Your task to perform on an android device: turn off smart reply in the gmail app Image 0: 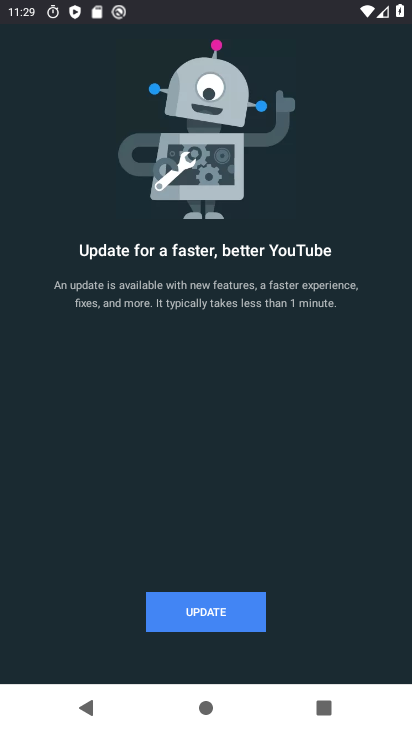
Step 0: press home button
Your task to perform on an android device: turn off smart reply in the gmail app Image 1: 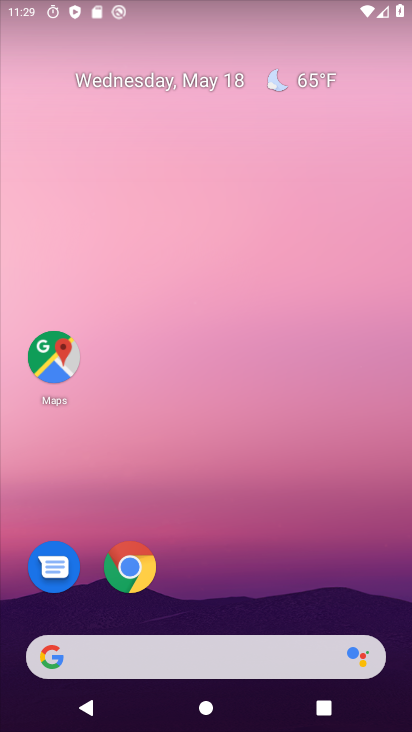
Step 1: drag from (324, 579) to (321, 109)
Your task to perform on an android device: turn off smart reply in the gmail app Image 2: 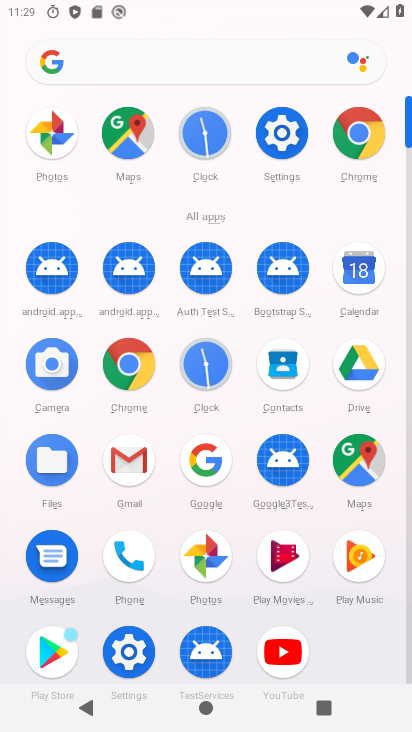
Step 2: click (138, 445)
Your task to perform on an android device: turn off smart reply in the gmail app Image 3: 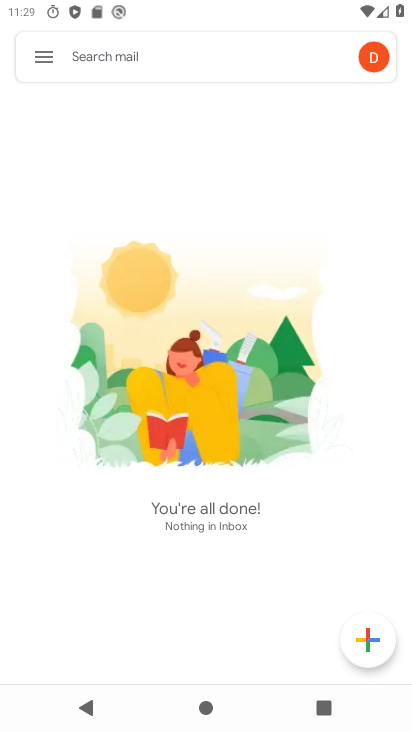
Step 3: click (47, 53)
Your task to perform on an android device: turn off smart reply in the gmail app Image 4: 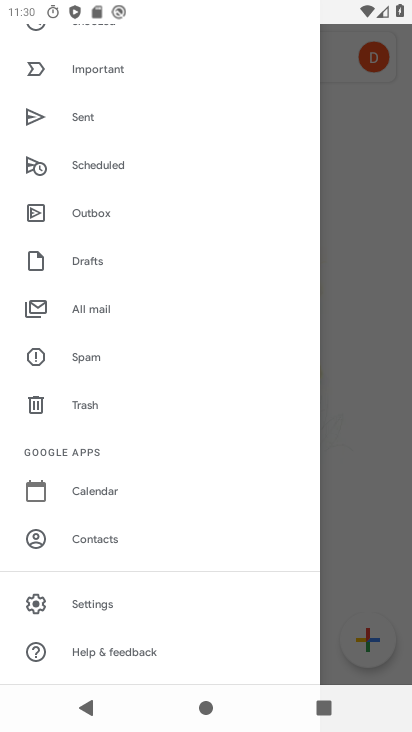
Step 4: click (88, 599)
Your task to perform on an android device: turn off smart reply in the gmail app Image 5: 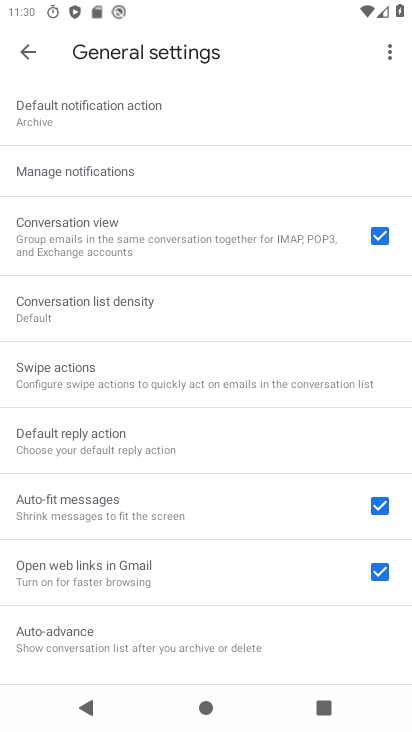
Step 5: click (27, 50)
Your task to perform on an android device: turn off smart reply in the gmail app Image 6: 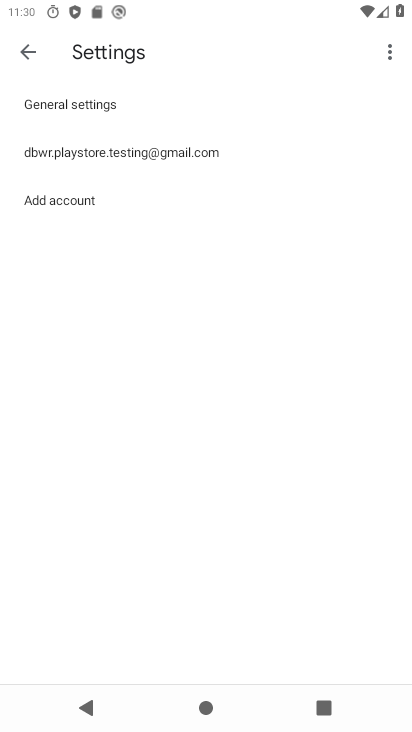
Step 6: click (87, 153)
Your task to perform on an android device: turn off smart reply in the gmail app Image 7: 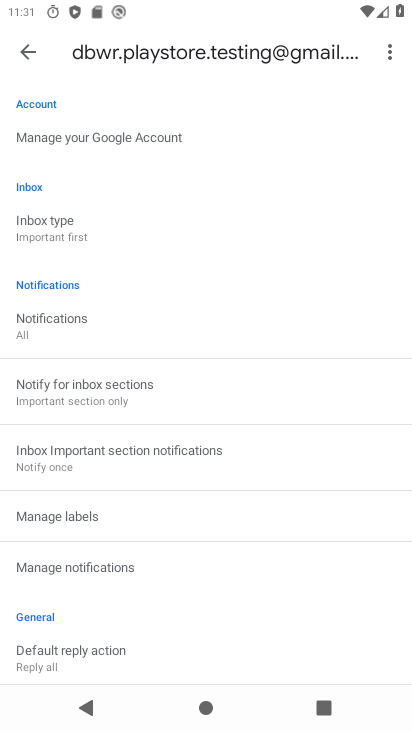
Step 7: drag from (110, 640) to (149, 298)
Your task to perform on an android device: turn off smart reply in the gmail app Image 8: 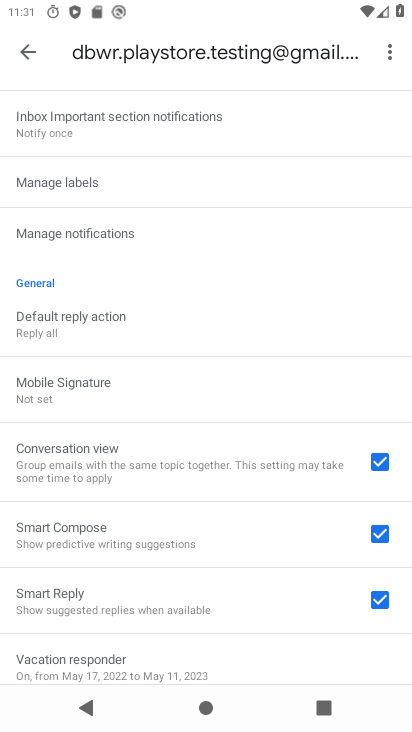
Step 8: click (388, 602)
Your task to perform on an android device: turn off smart reply in the gmail app Image 9: 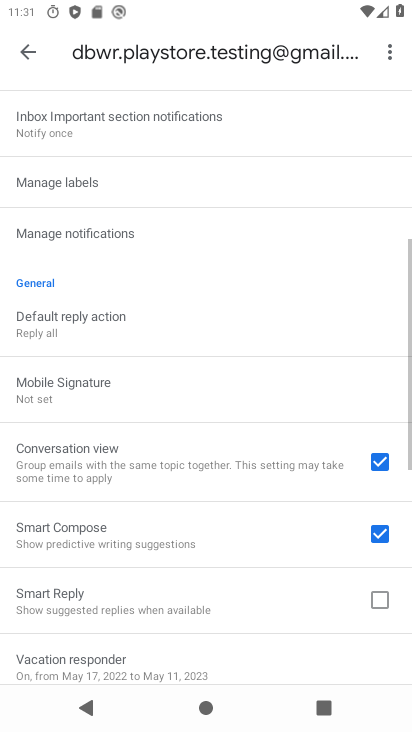
Step 9: task complete